Your task to perform on an android device: find which apps use the phone's location Image 0: 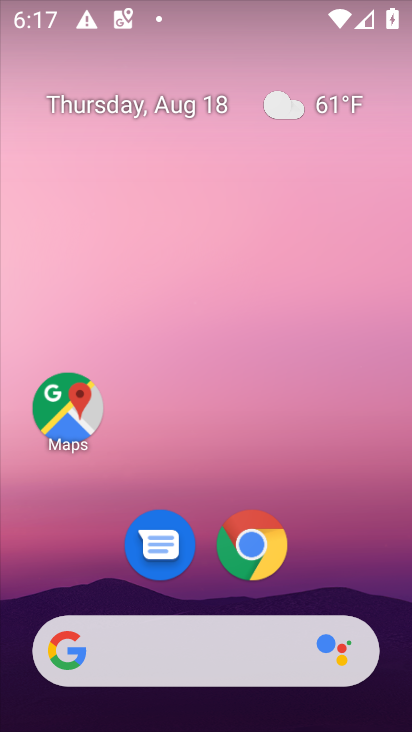
Step 0: drag from (316, 548) to (232, 83)
Your task to perform on an android device: find which apps use the phone's location Image 1: 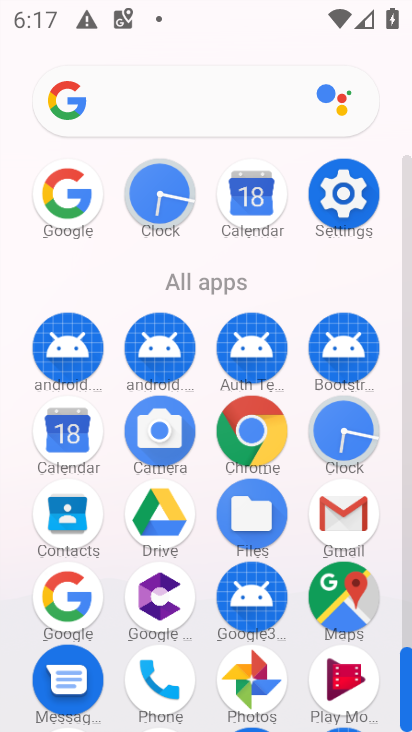
Step 1: click (346, 189)
Your task to perform on an android device: find which apps use the phone's location Image 2: 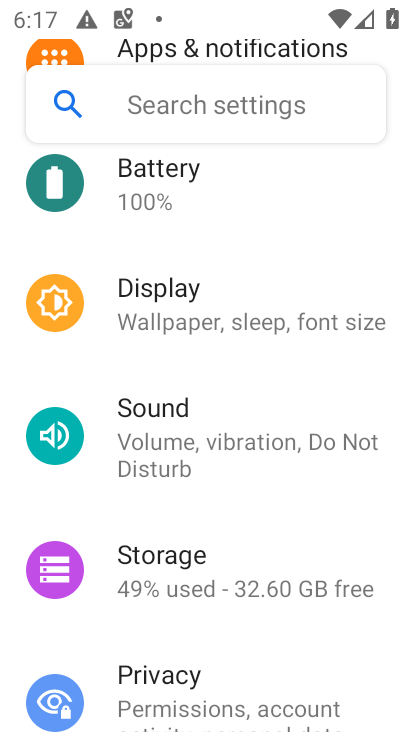
Step 2: drag from (235, 610) to (219, 297)
Your task to perform on an android device: find which apps use the phone's location Image 3: 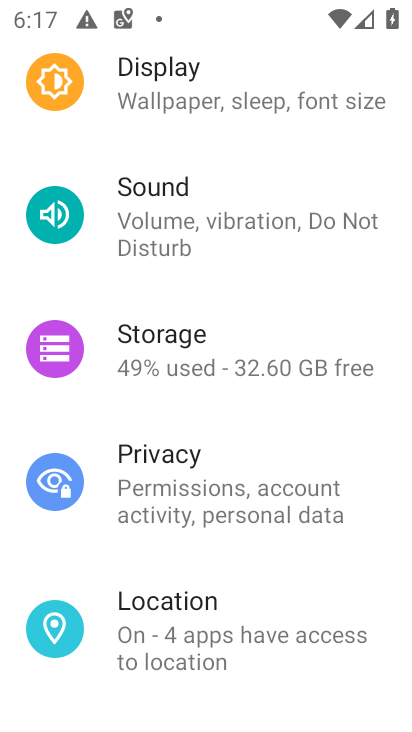
Step 3: click (169, 603)
Your task to perform on an android device: find which apps use the phone's location Image 4: 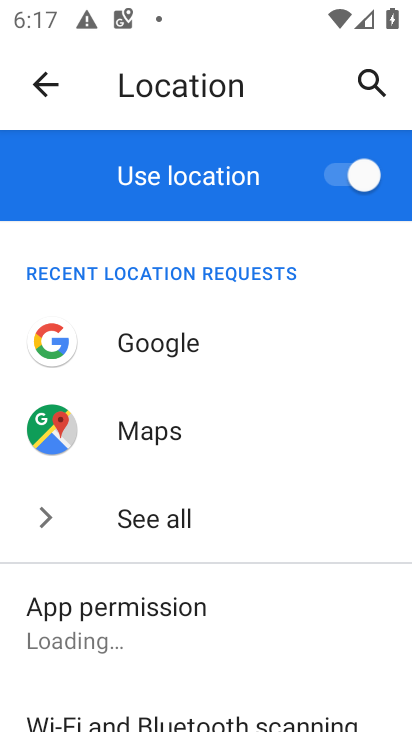
Step 4: click (156, 514)
Your task to perform on an android device: find which apps use the phone's location Image 5: 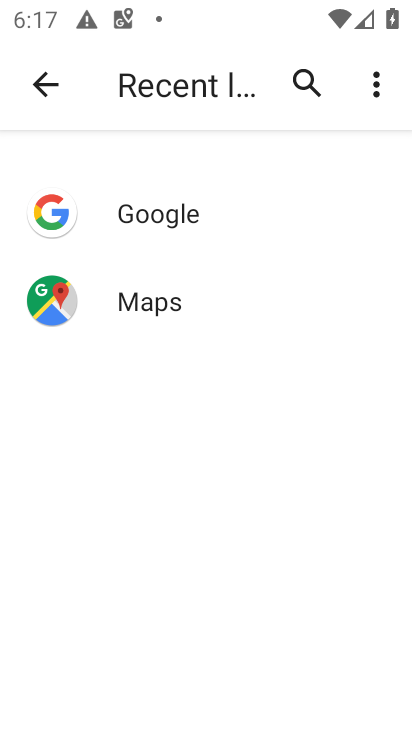
Step 5: task complete